Your task to perform on an android device: delete a single message in the gmail app Image 0: 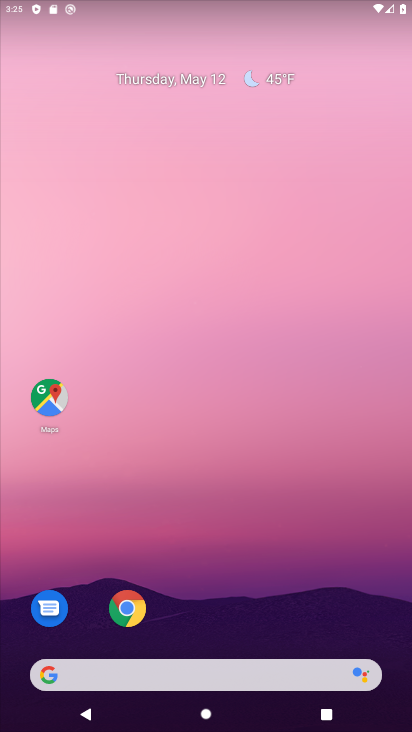
Step 0: drag from (211, 636) to (315, 3)
Your task to perform on an android device: delete a single message in the gmail app Image 1: 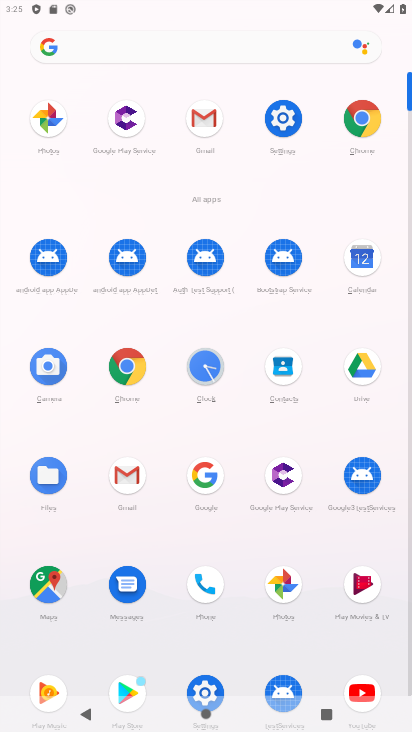
Step 1: click (118, 476)
Your task to perform on an android device: delete a single message in the gmail app Image 2: 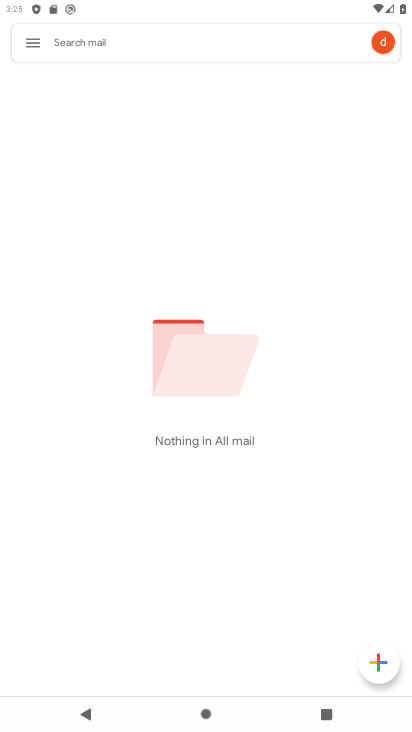
Step 2: task complete